Your task to perform on an android device: turn on wifi Image 0: 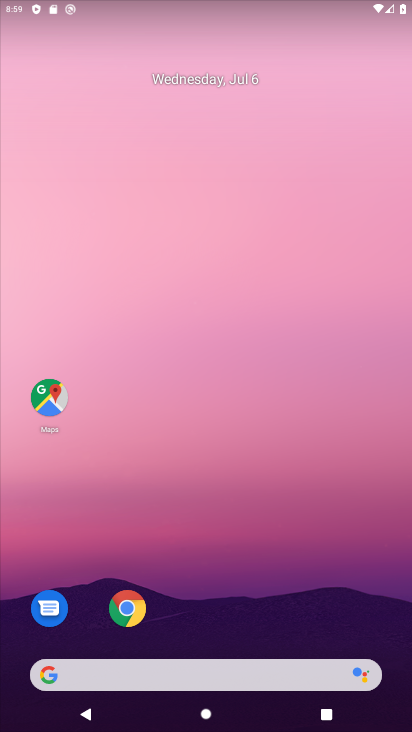
Step 0: drag from (235, 551) to (180, 145)
Your task to perform on an android device: turn on wifi Image 1: 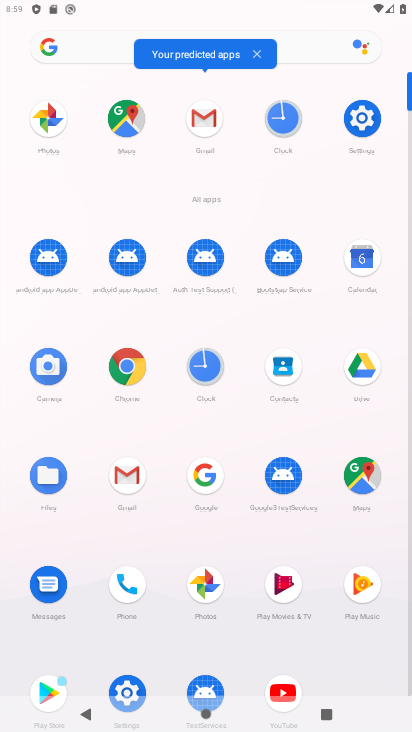
Step 1: click (364, 121)
Your task to perform on an android device: turn on wifi Image 2: 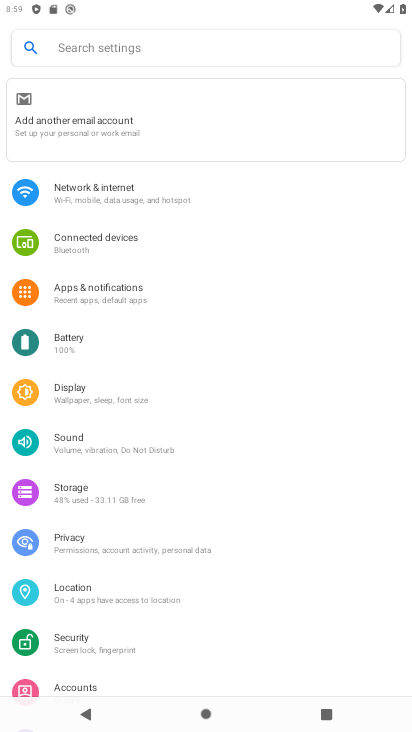
Step 2: click (85, 190)
Your task to perform on an android device: turn on wifi Image 3: 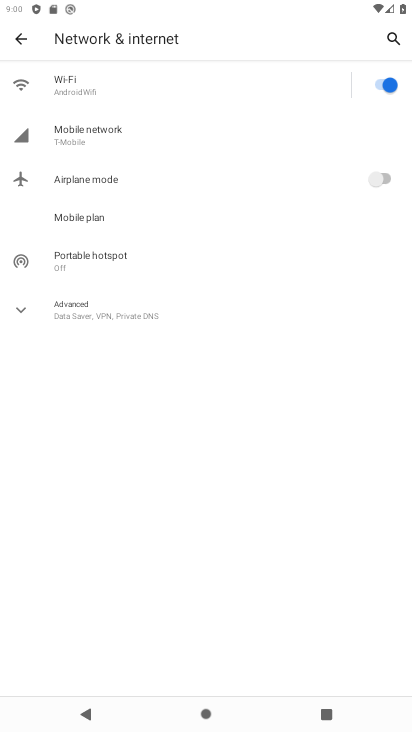
Step 3: task complete